Your task to perform on an android device: Toggle the flashlight Image 0: 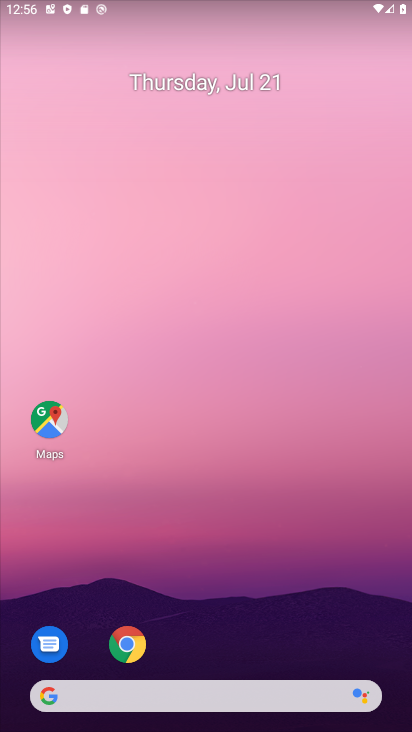
Step 0: press home button
Your task to perform on an android device: Toggle the flashlight Image 1: 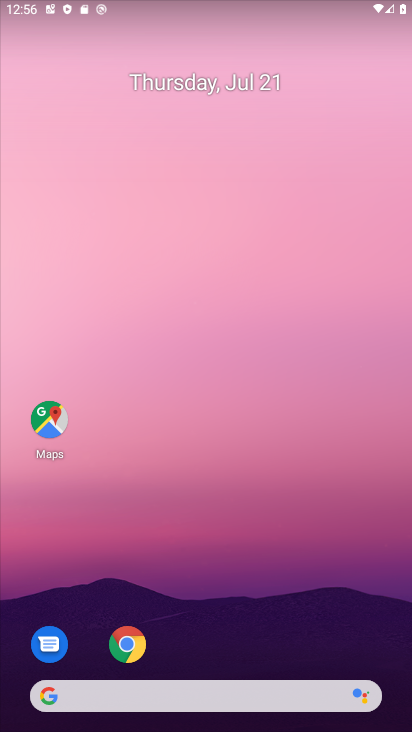
Step 1: task complete